Your task to perform on an android device: Open Google Maps and go to "Timeline" Image 0: 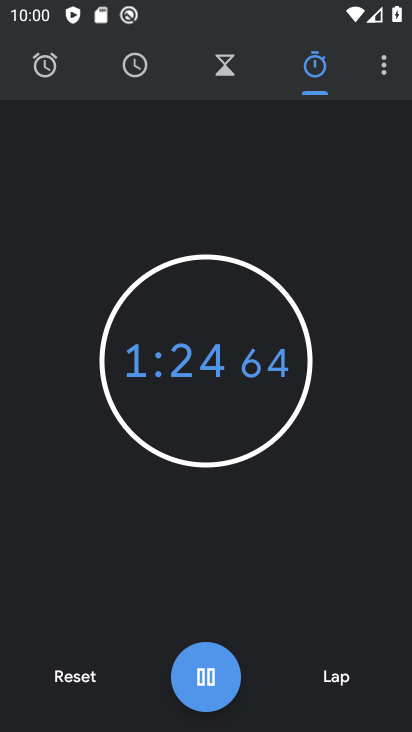
Step 0: click (76, 677)
Your task to perform on an android device: Open Google Maps and go to "Timeline" Image 1: 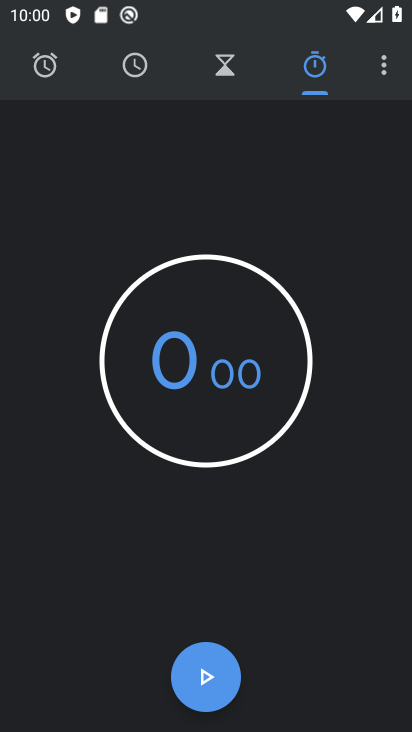
Step 1: press home button
Your task to perform on an android device: Open Google Maps and go to "Timeline" Image 2: 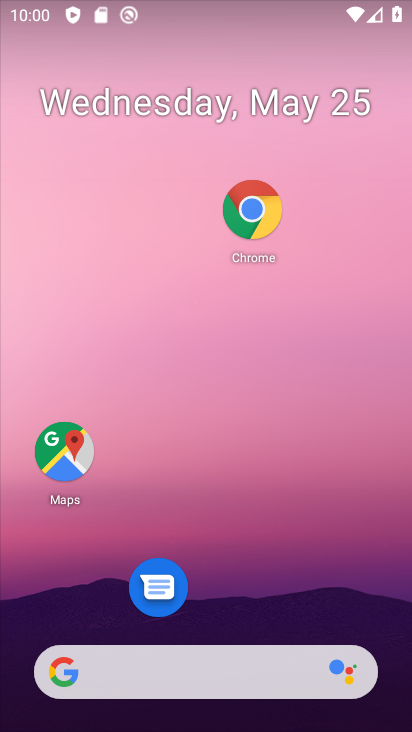
Step 2: drag from (223, 602) to (277, 67)
Your task to perform on an android device: Open Google Maps and go to "Timeline" Image 3: 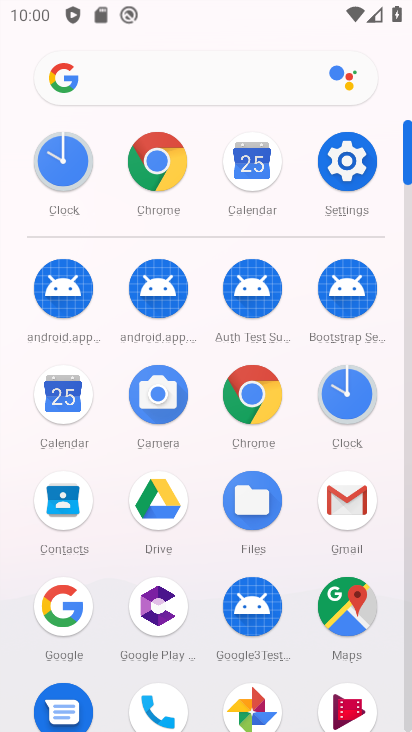
Step 3: click (345, 600)
Your task to perform on an android device: Open Google Maps and go to "Timeline" Image 4: 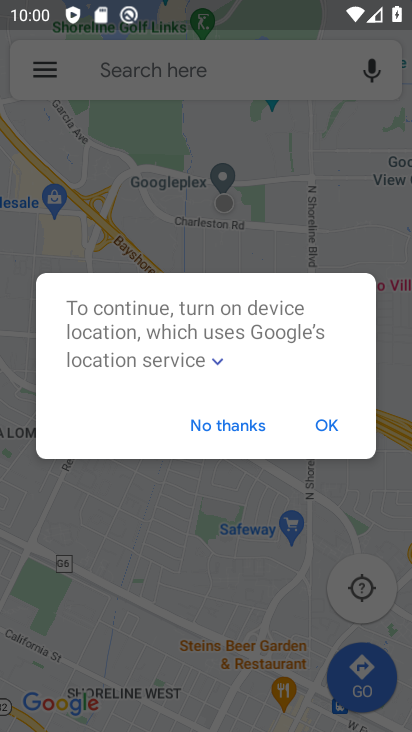
Step 4: click (48, 71)
Your task to perform on an android device: Open Google Maps and go to "Timeline" Image 5: 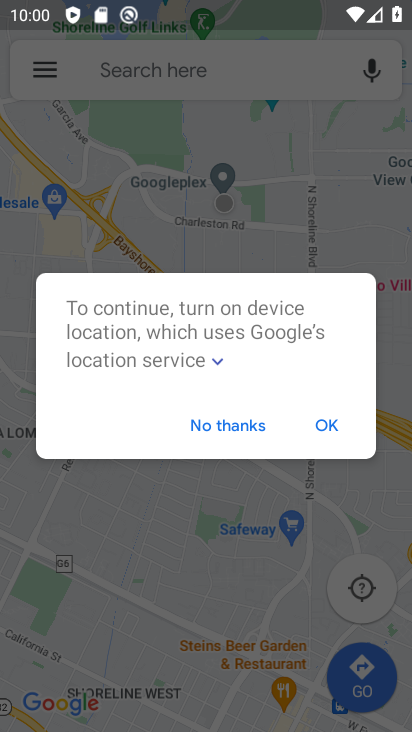
Step 5: click (323, 434)
Your task to perform on an android device: Open Google Maps and go to "Timeline" Image 6: 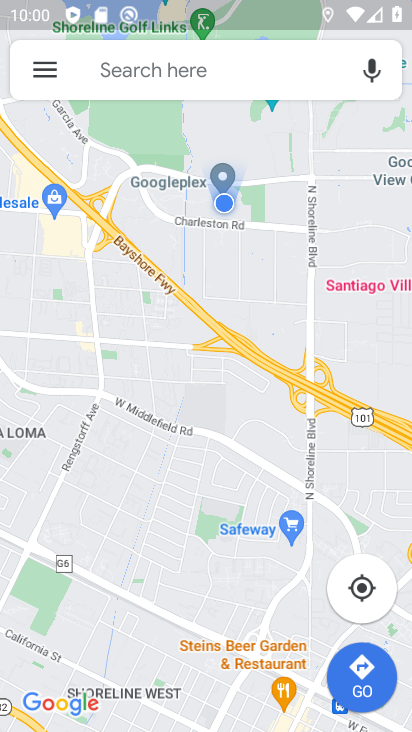
Step 6: click (54, 67)
Your task to perform on an android device: Open Google Maps and go to "Timeline" Image 7: 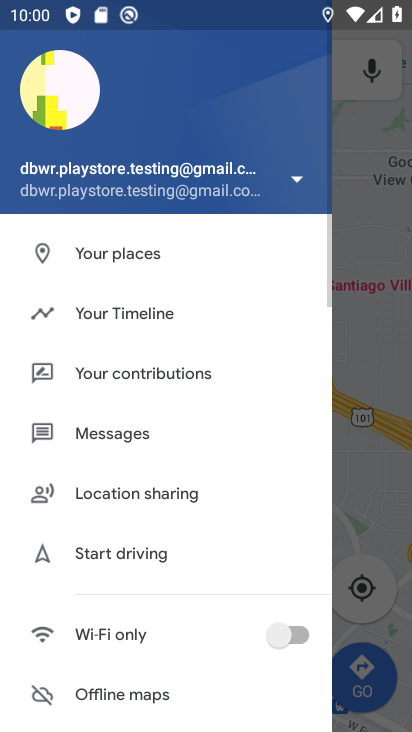
Step 7: click (178, 312)
Your task to perform on an android device: Open Google Maps and go to "Timeline" Image 8: 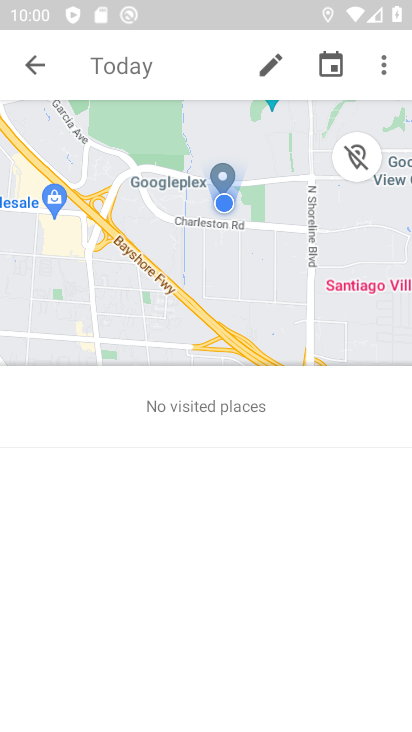
Step 8: task complete